Your task to perform on an android device: Is it going to rain today? Image 0: 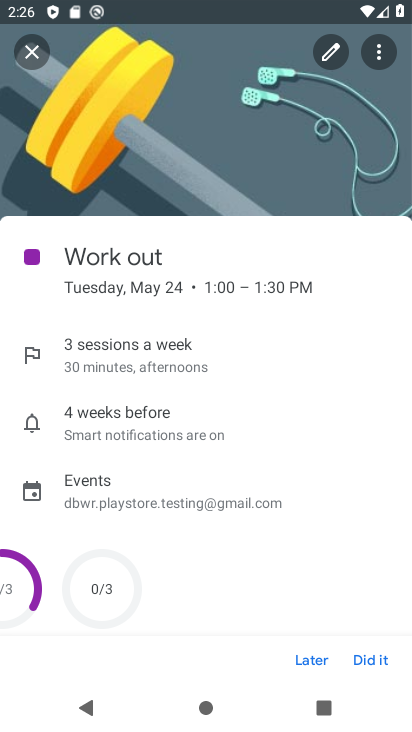
Step 0: press home button
Your task to perform on an android device: Is it going to rain today? Image 1: 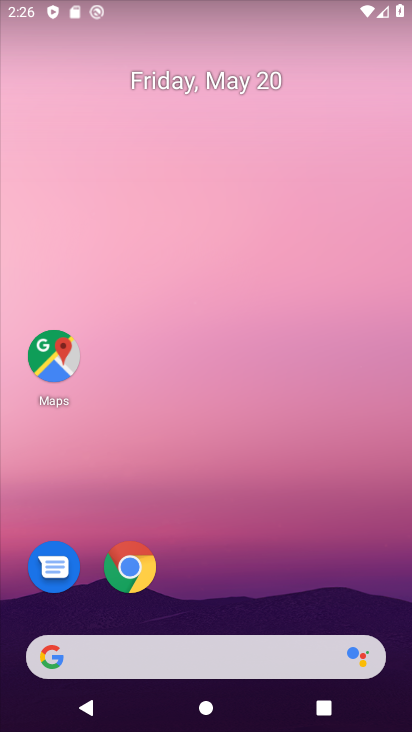
Step 1: drag from (188, 575) to (225, 268)
Your task to perform on an android device: Is it going to rain today? Image 2: 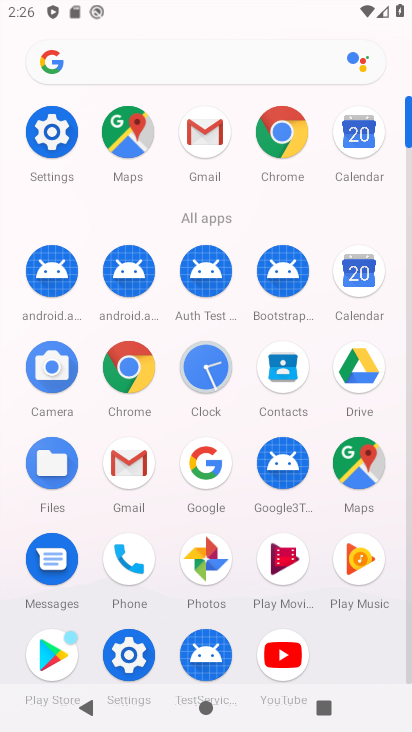
Step 2: click (203, 460)
Your task to perform on an android device: Is it going to rain today? Image 3: 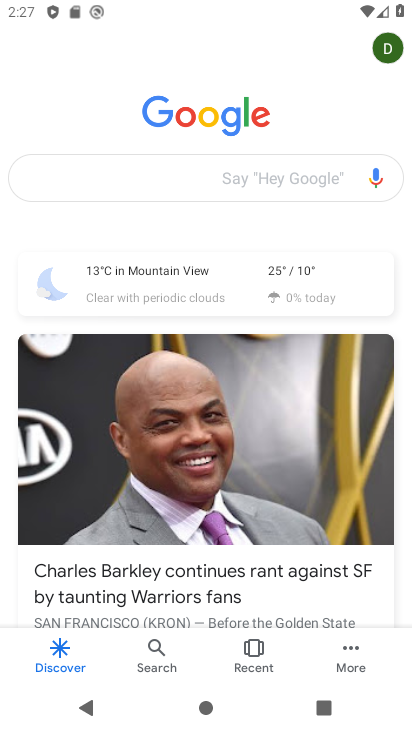
Step 3: click (100, 177)
Your task to perform on an android device: Is it going to rain today? Image 4: 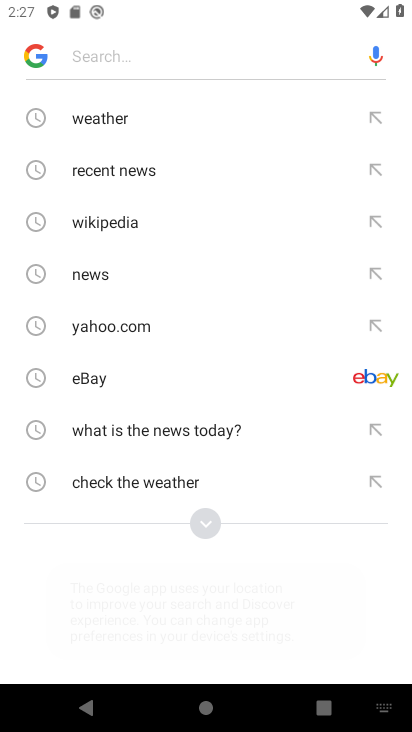
Step 4: click (206, 524)
Your task to perform on an android device: Is it going to rain today? Image 5: 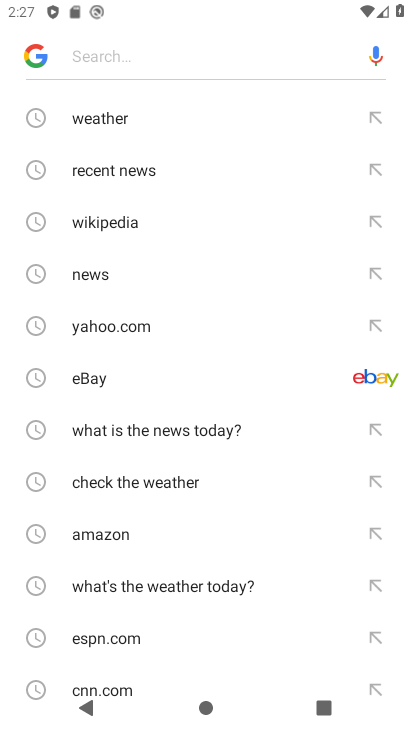
Step 5: drag from (134, 672) to (139, 318)
Your task to perform on an android device: Is it going to rain today? Image 6: 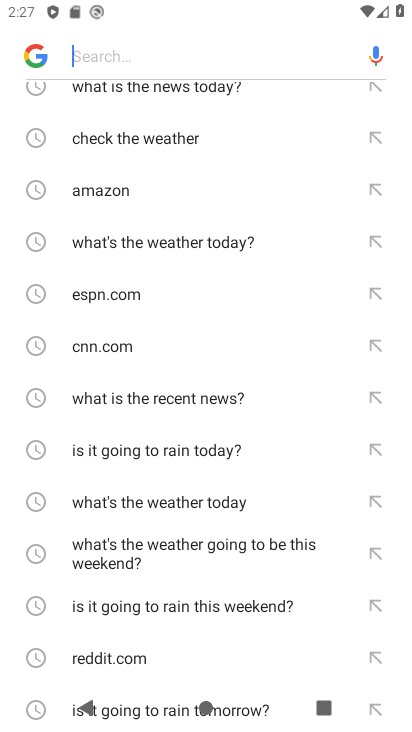
Step 6: click (121, 454)
Your task to perform on an android device: Is it going to rain today? Image 7: 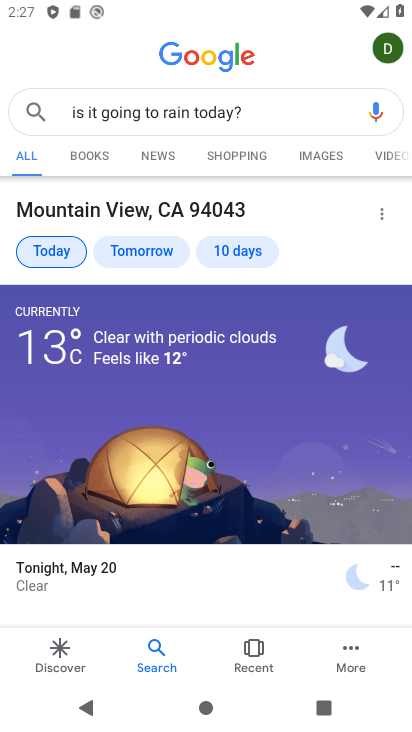
Step 7: drag from (151, 590) to (163, 323)
Your task to perform on an android device: Is it going to rain today? Image 8: 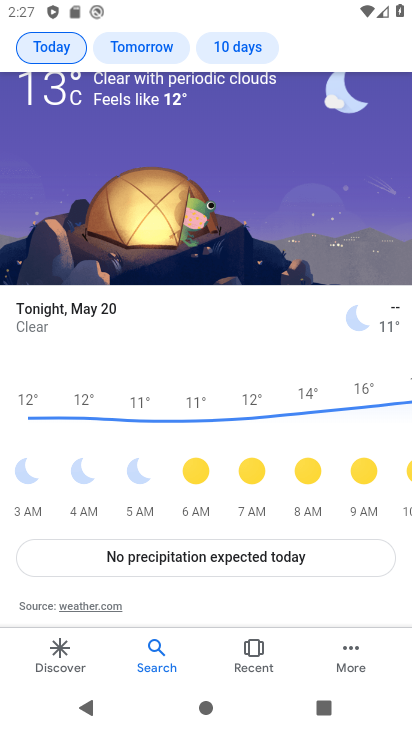
Step 8: click (161, 552)
Your task to perform on an android device: Is it going to rain today? Image 9: 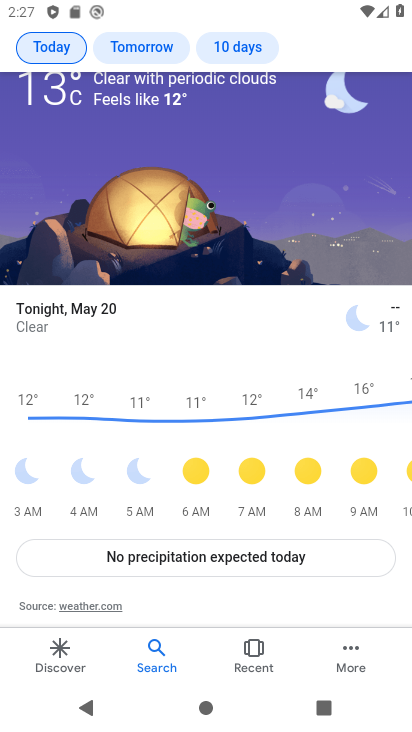
Step 9: click (217, 554)
Your task to perform on an android device: Is it going to rain today? Image 10: 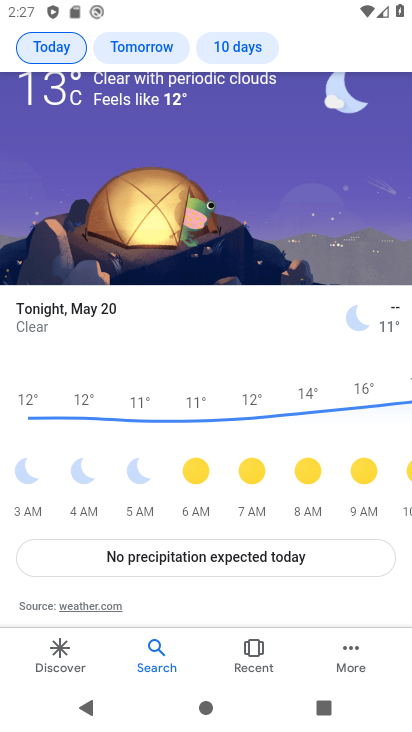
Step 10: task complete